Your task to perform on an android device: Open Wikipedia Image 0: 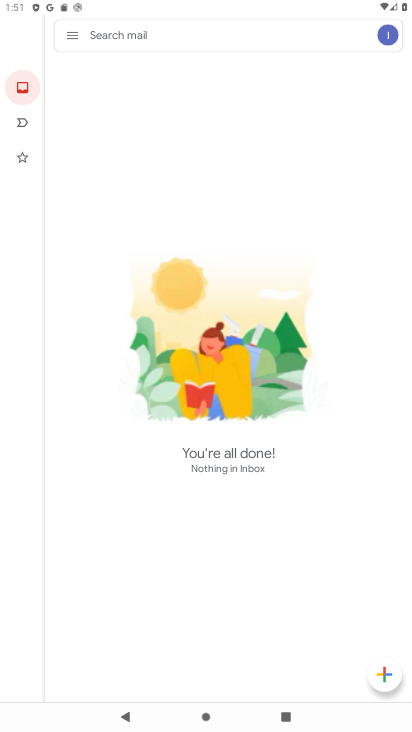
Step 0: press home button
Your task to perform on an android device: Open Wikipedia Image 1: 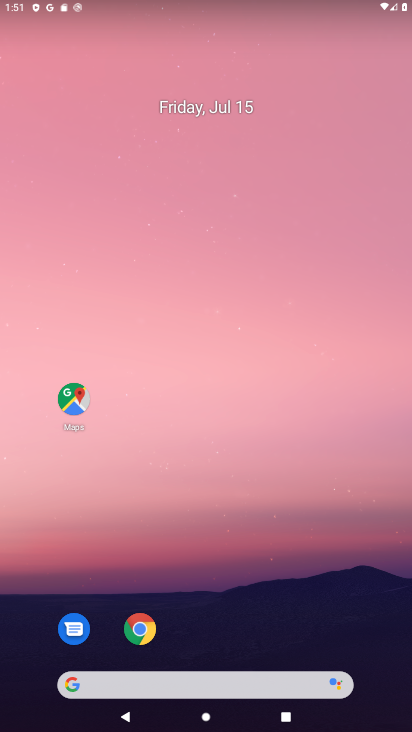
Step 1: click (143, 626)
Your task to perform on an android device: Open Wikipedia Image 2: 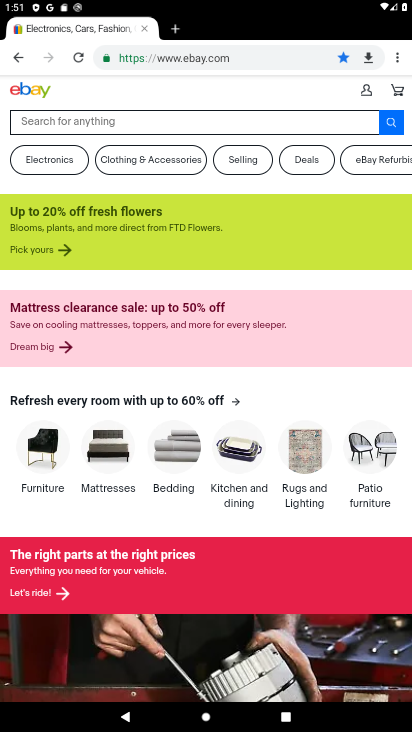
Step 2: click (396, 59)
Your task to perform on an android device: Open Wikipedia Image 3: 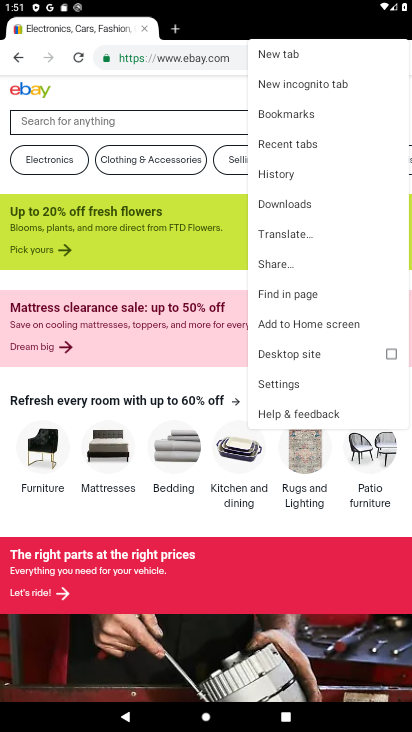
Step 3: click (278, 186)
Your task to perform on an android device: Open Wikipedia Image 4: 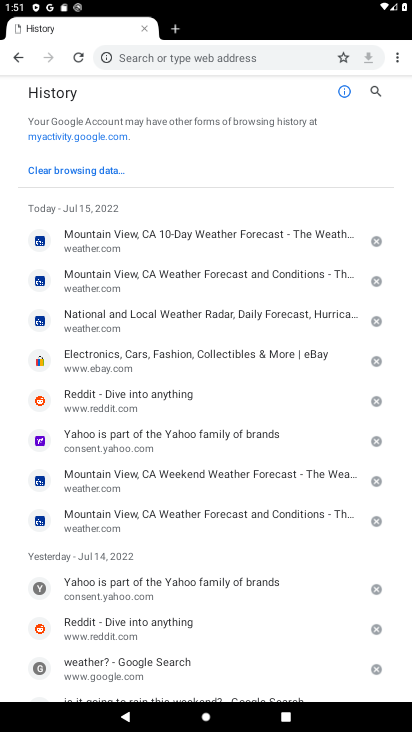
Step 4: click (23, 65)
Your task to perform on an android device: Open Wikipedia Image 5: 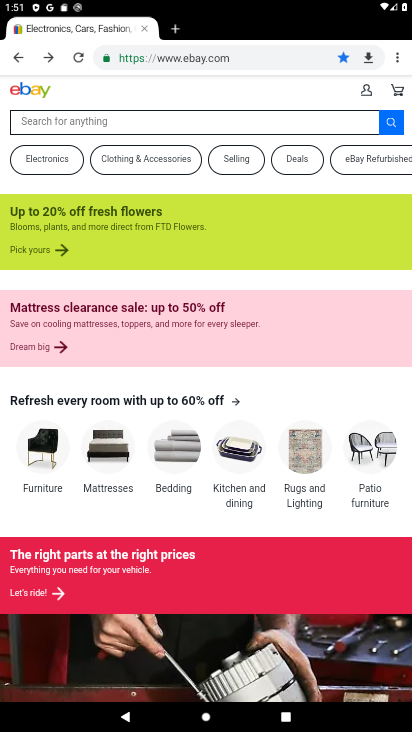
Step 5: click (397, 59)
Your task to perform on an android device: Open Wikipedia Image 6: 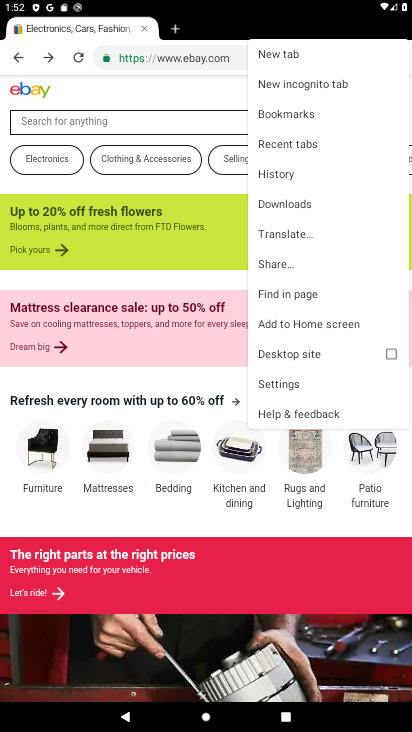
Step 6: click (270, 60)
Your task to perform on an android device: Open Wikipedia Image 7: 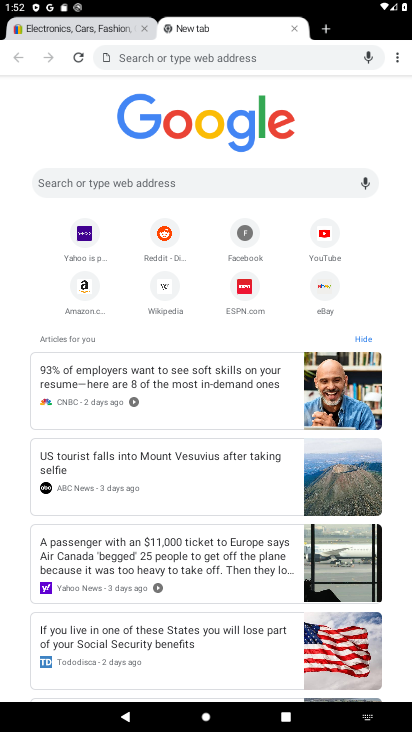
Step 7: click (161, 297)
Your task to perform on an android device: Open Wikipedia Image 8: 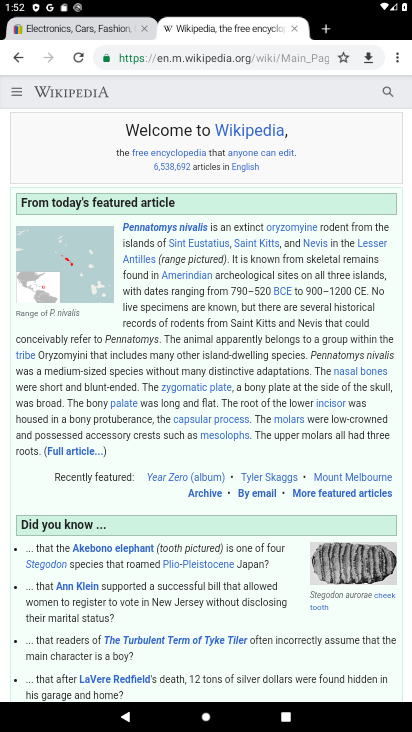
Step 8: task complete